Your task to perform on an android device: turn off notifications in google photos Image 0: 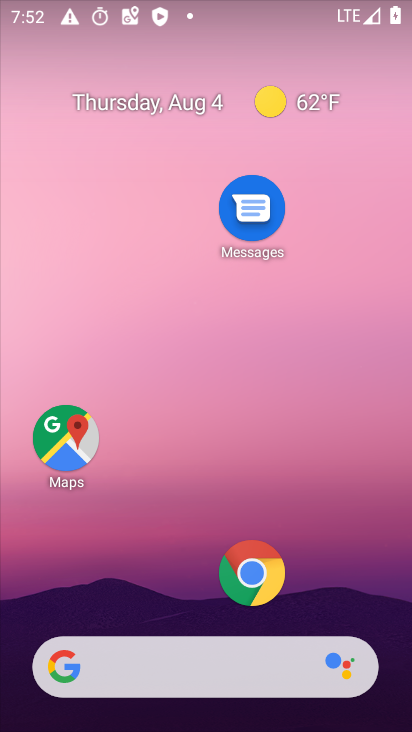
Step 0: press home button
Your task to perform on an android device: turn off notifications in google photos Image 1: 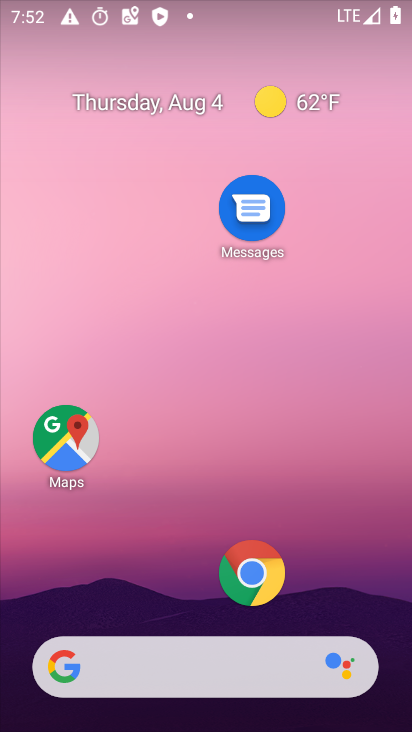
Step 1: drag from (116, 618) to (153, 112)
Your task to perform on an android device: turn off notifications in google photos Image 2: 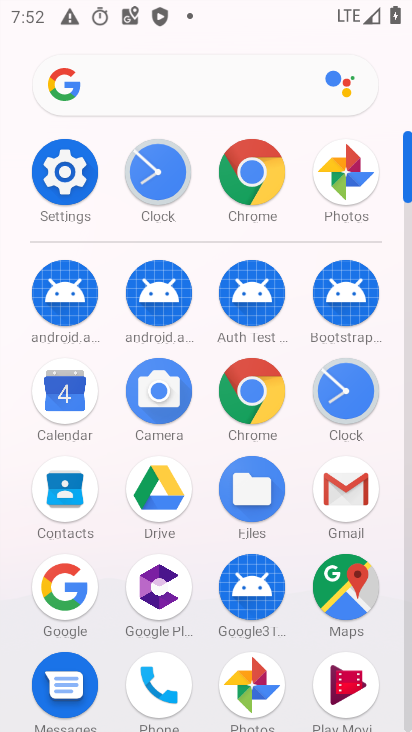
Step 2: click (253, 688)
Your task to perform on an android device: turn off notifications in google photos Image 3: 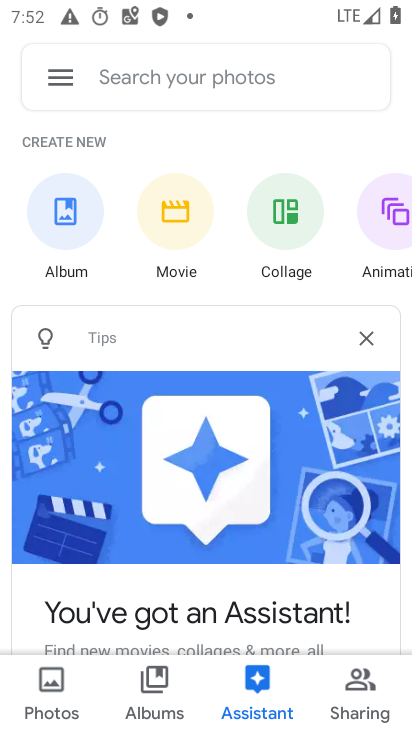
Step 3: click (75, 82)
Your task to perform on an android device: turn off notifications in google photos Image 4: 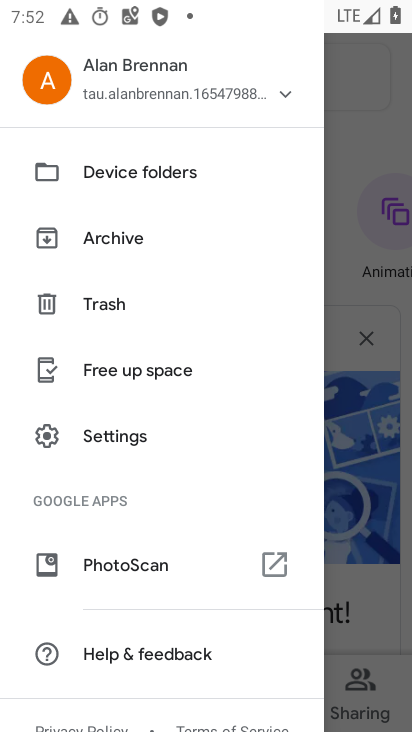
Step 4: click (116, 446)
Your task to perform on an android device: turn off notifications in google photos Image 5: 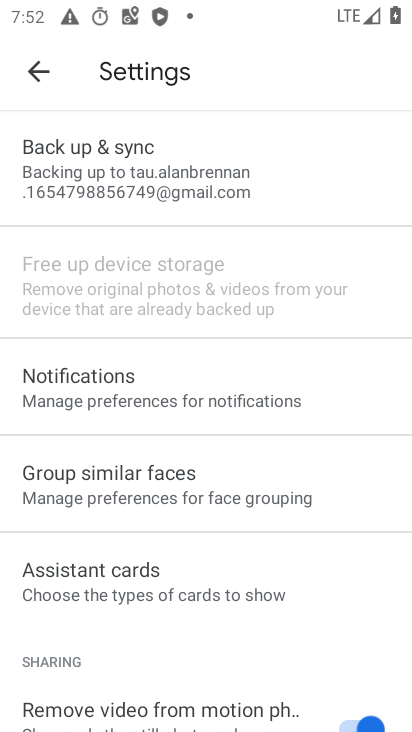
Step 5: click (116, 397)
Your task to perform on an android device: turn off notifications in google photos Image 6: 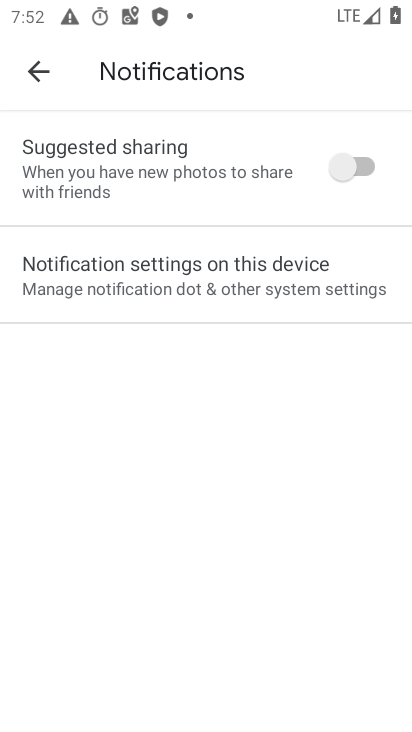
Step 6: task complete